Your task to perform on an android device: turn off location Image 0: 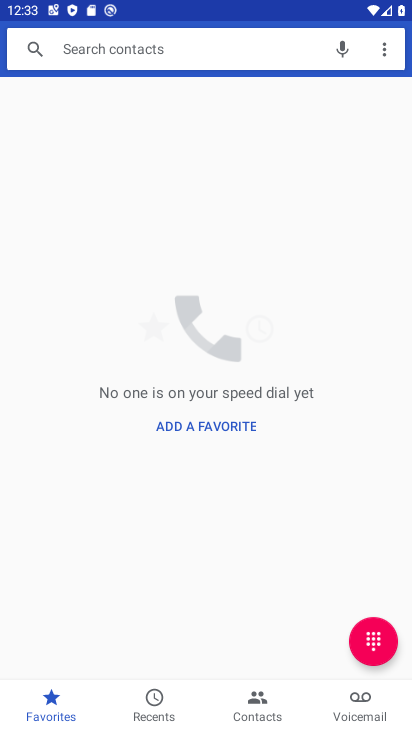
Step 0: press home button
Your task to perform on an android device: turn off location Image 1: 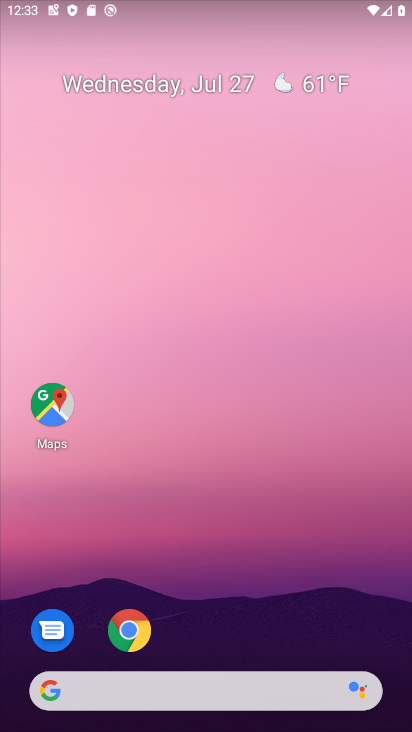
Step 1: drag from (174, 658) to (178, 405)
Your task to perform on an android device: turn off location Image 2: 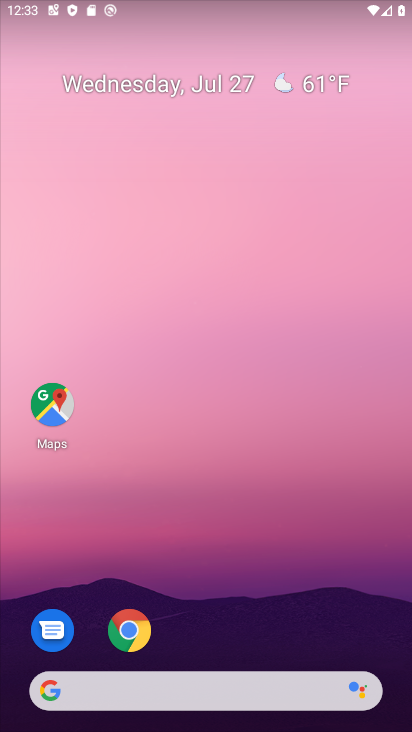
Step 2: drag from (300, 642) to (248, 80)
Your task to perform on an android device: turn off location Image 3: 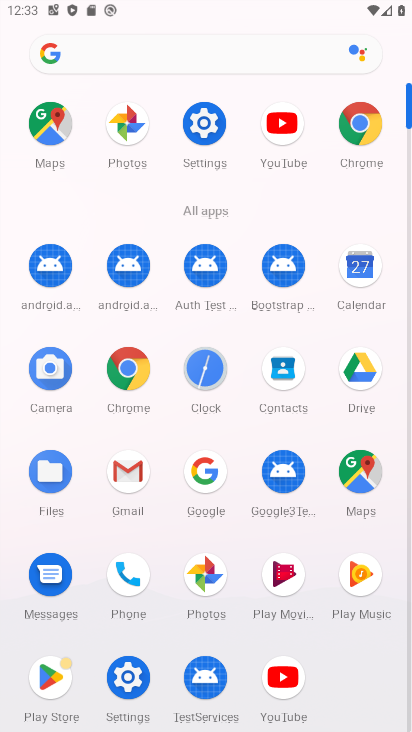
Step 3: click (214, 129)
Your task to perform on an android device: turn off location Image 4: 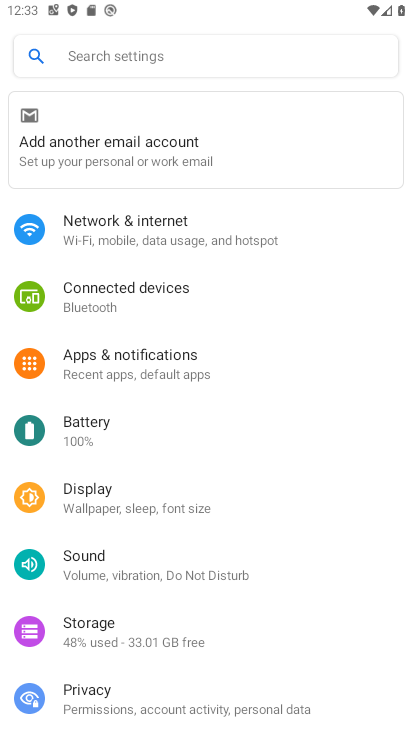
Step 4: drag from (90, 640) to (115, 353)
Your task to perform on an android device: turn off location Image 5: 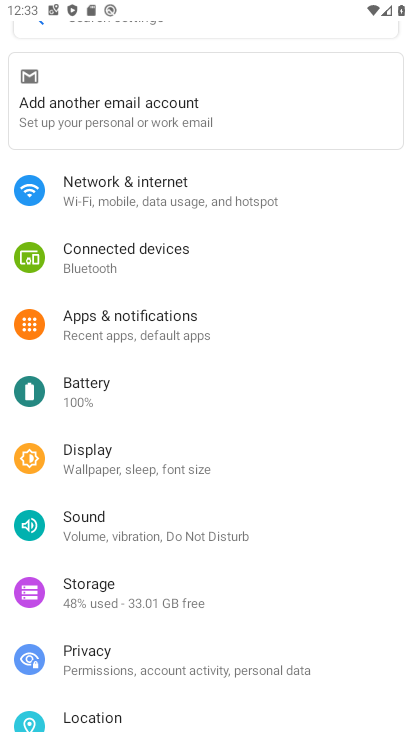
Step 5: click (82, 711)
Your task to perform on an android device: turn off location Image 6: 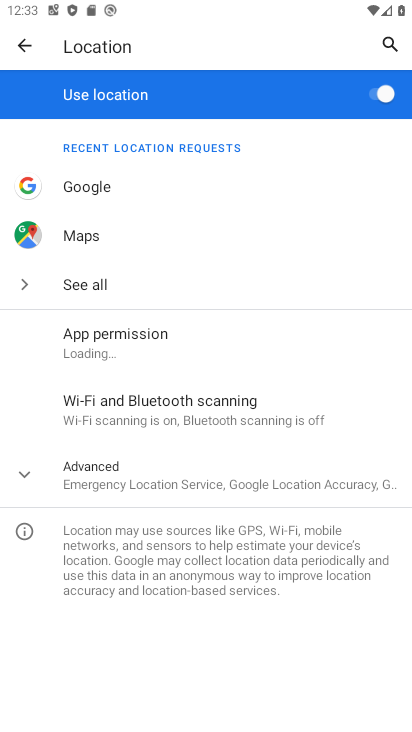
Step 6: click (88, 476)
Your task to perform on an android device: turn off location Image 7: 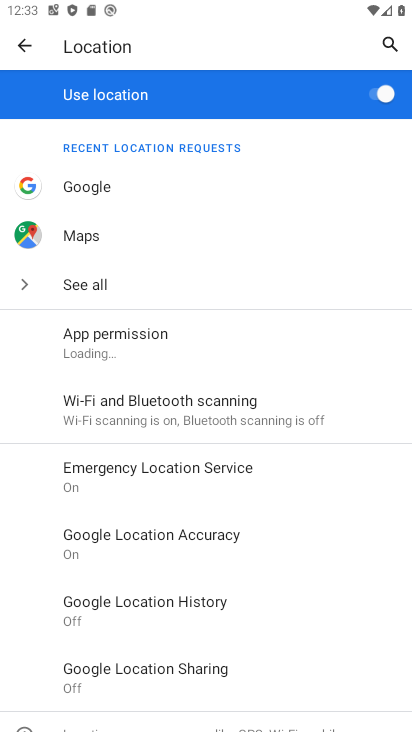
Step 7: click (383, 98)
Your task to perform on an android device: turn off location Image 8: 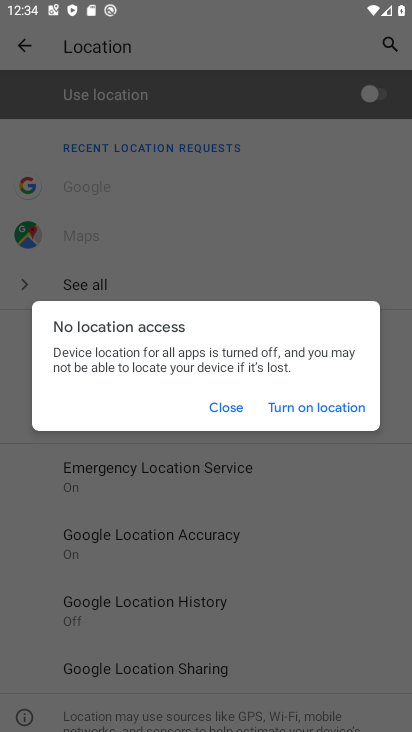
Step 8: click (234, 412)
Your task to perform on an android device: turn off location Image 9: 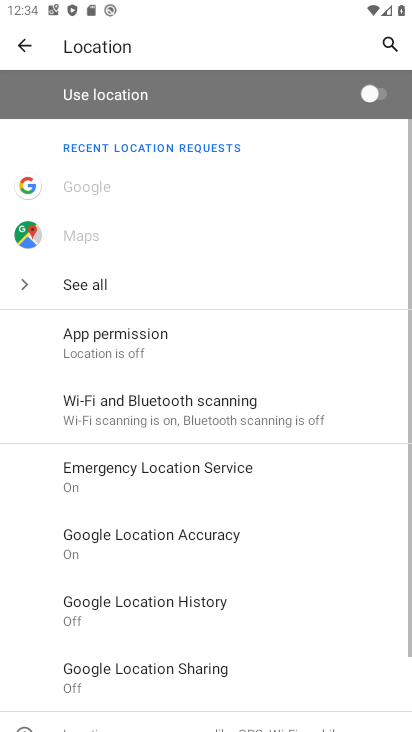
Step 9: task complete